Your task to perform on an android device: move a message to another label in the gmail app Image 0: 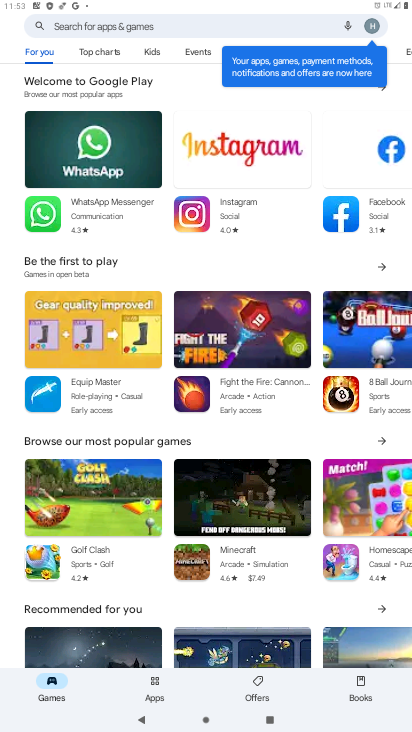
Step 0: press home button
Your task to perform on an android device: move a message to another label in the gmail app Image 1: 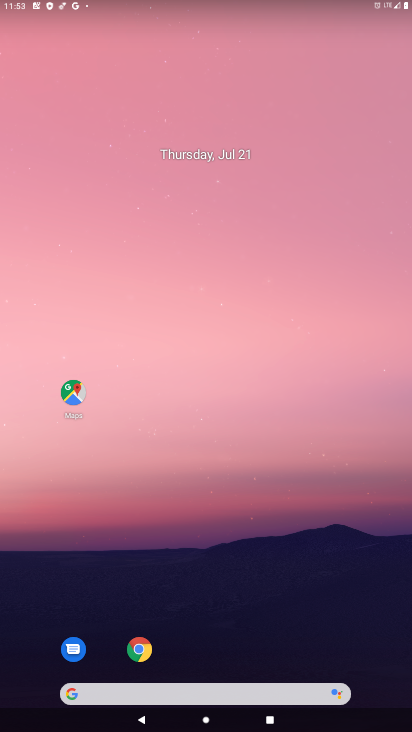
Step 1: drag from (256, 602) to (303, 84)
Your task to perform on an android device: move a message to another label in the gmail app Image 2: 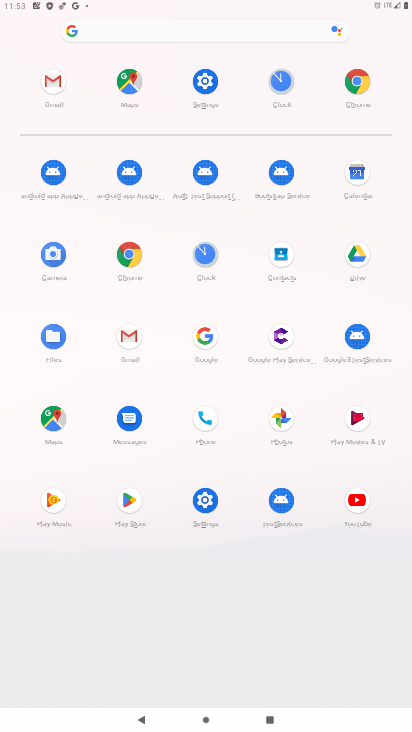
Step 2: click (55, 84)
Your task to perform on an android device: move a message to another label in the gmail app Image 3: 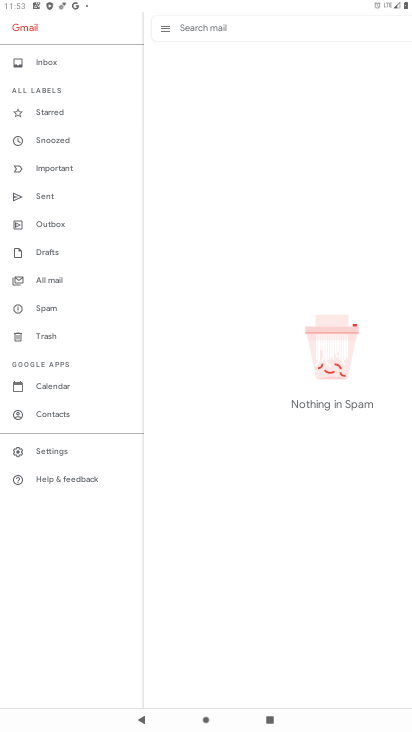
Step 3: click (57, 272)
Your task to perform on an android device: move a message to another label in the gmail app Image 4: 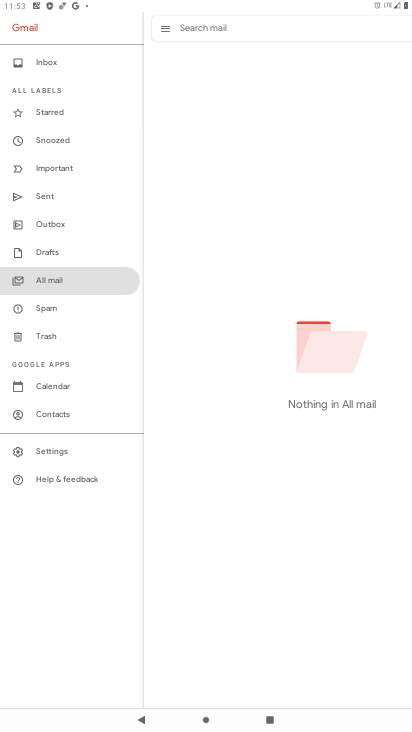
Step 4: task complete